Your task to perform on an android device: add a label to a message in the gmail app Image 0: 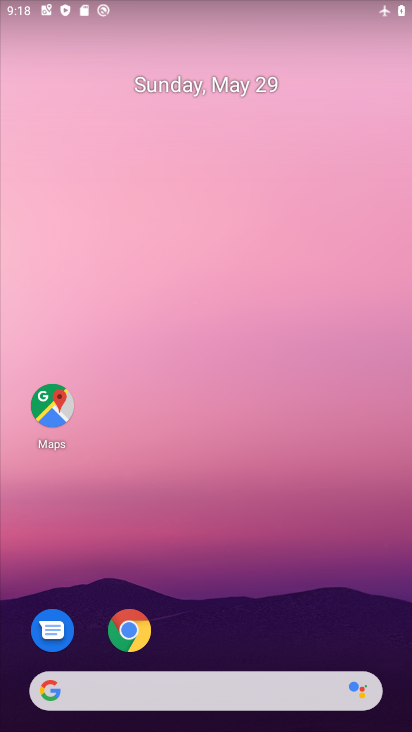
Step 0: drag from (328, 643) to (290, 71)
Your task to perform on an android device: add a label to a message in the gmail app Image 1: 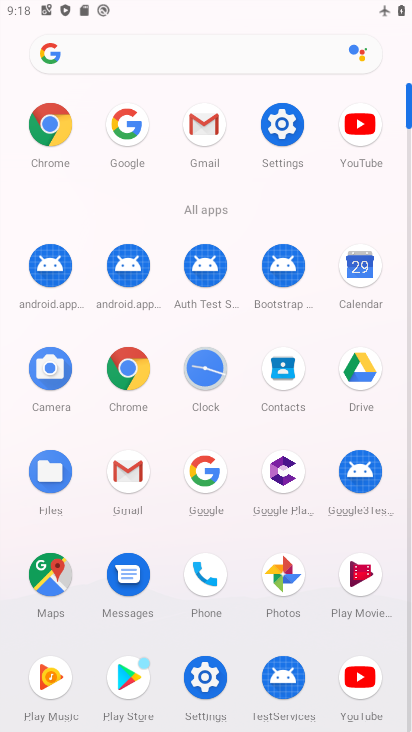
Step 1: click (122, 469)
Your task to perform on an android device: add a label to a message in the gmail app Image 2: 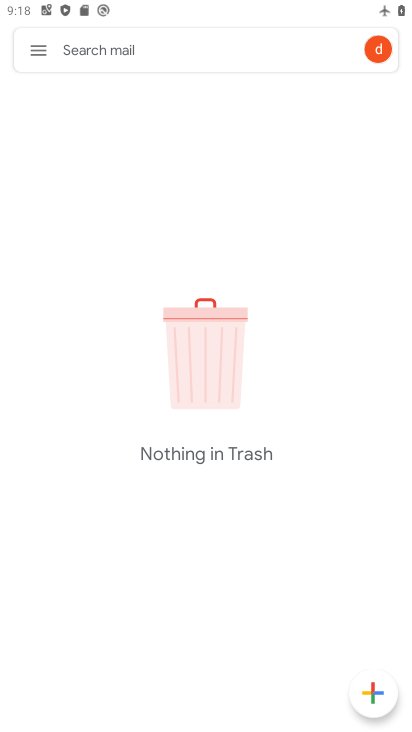
Step 2: click (45, 47)
Your task to perform on an android device: add a label to a message in the gmail app Image 3: 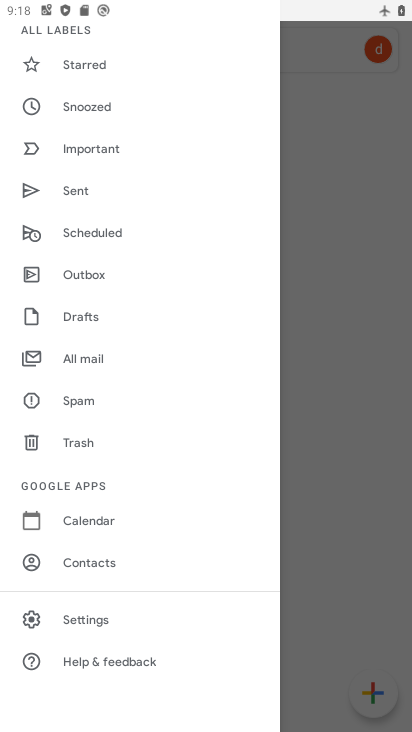
Step 3: click (77, 355)
Your task to perform on an android device: add a label to a message in the gmail app Image 4: 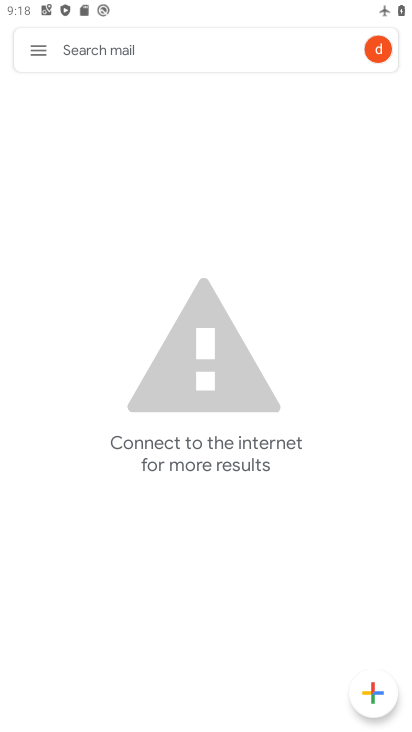
Step 4: drag from (374, 4) to (326, 436)
Your task to perform on an android device: add a label to a message in the gmail app Image 5: 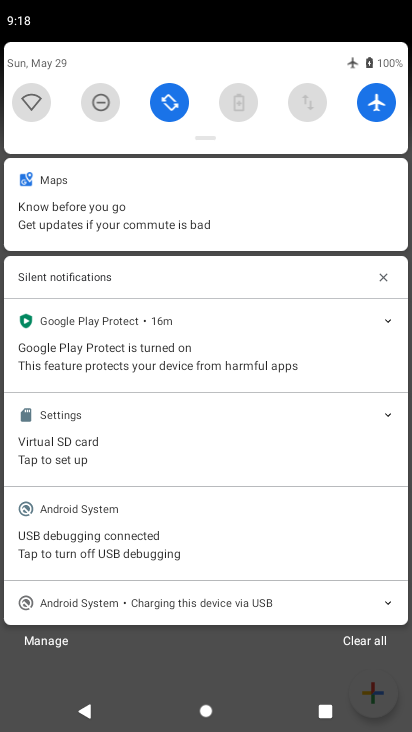
Step 5: click (390, 101)
Your task to perform on an android device: add a label to a message in the gmail app Image 6: 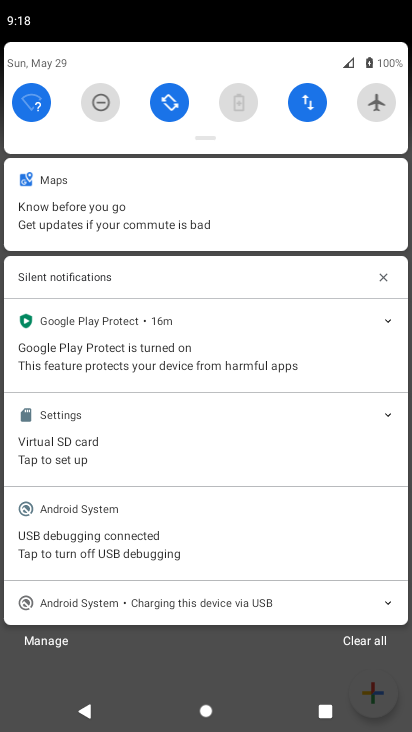
Step 6: task complete